Your task to perform on an android device: Open the map Image 0: 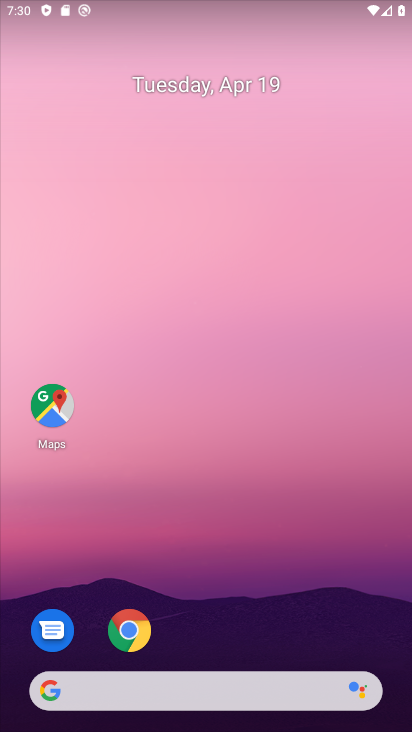
Step 0: drag from (202, 652) to (153, 261)
Your task to perform on an android device: Open the map Image 1: 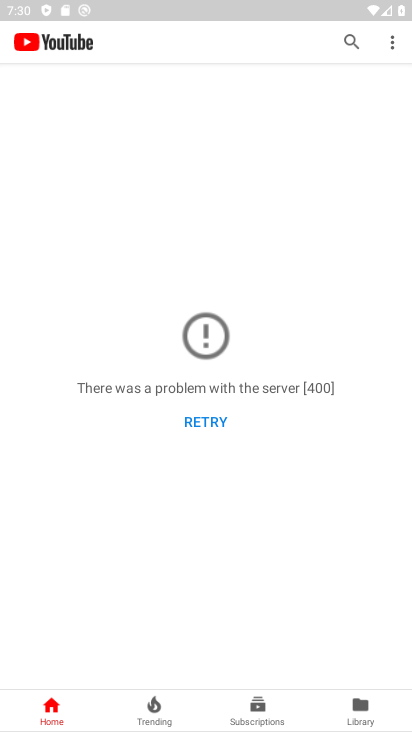
Step 1: press home button
Your task to perform on an android device: Open the map Image 2: 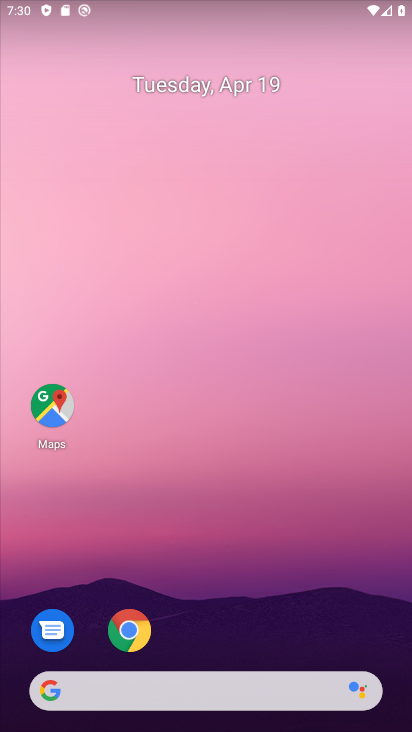
Step 2: drag from (203, 652) to (287, 543)
Your task to perform on an android device: Open the map Image 3: 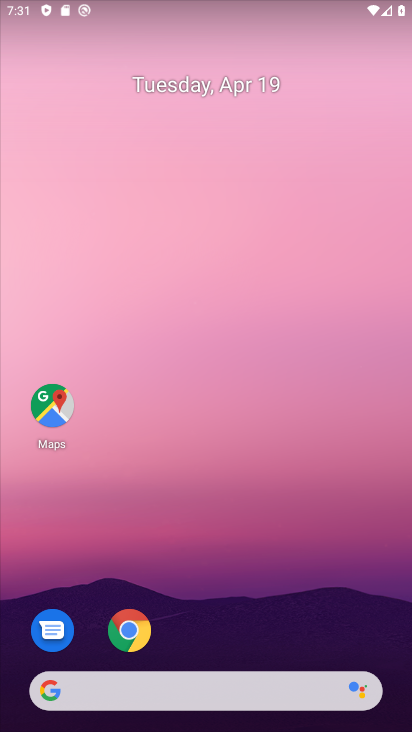
Step 3: drag from (216, 678) to (130, 18)
Your task to perform on an android device: Open the map Image 4: 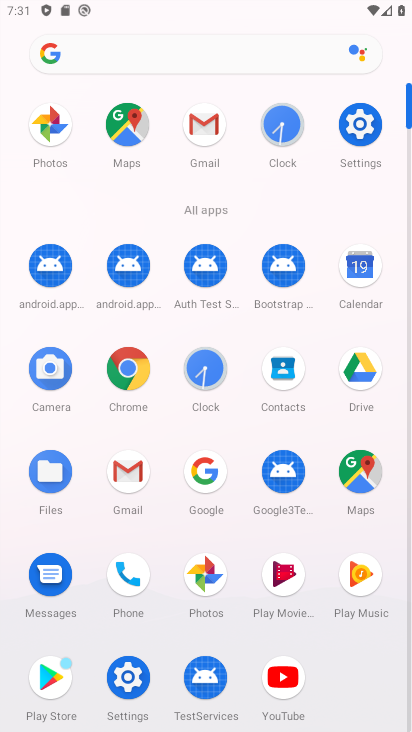
Step 4: click (358, 478)
Your task to perform on an android device: Open the map Image 5: 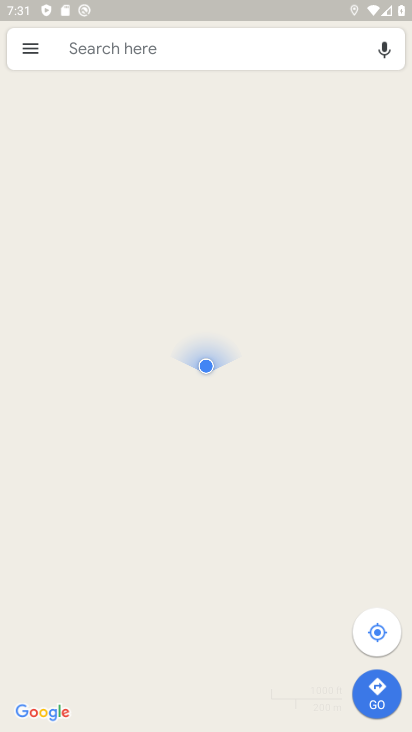
Step 5: task complete